Your task to perform on an android device: Clear the cart on ebay. Add razer thresher to the cart on ebay Image 0: 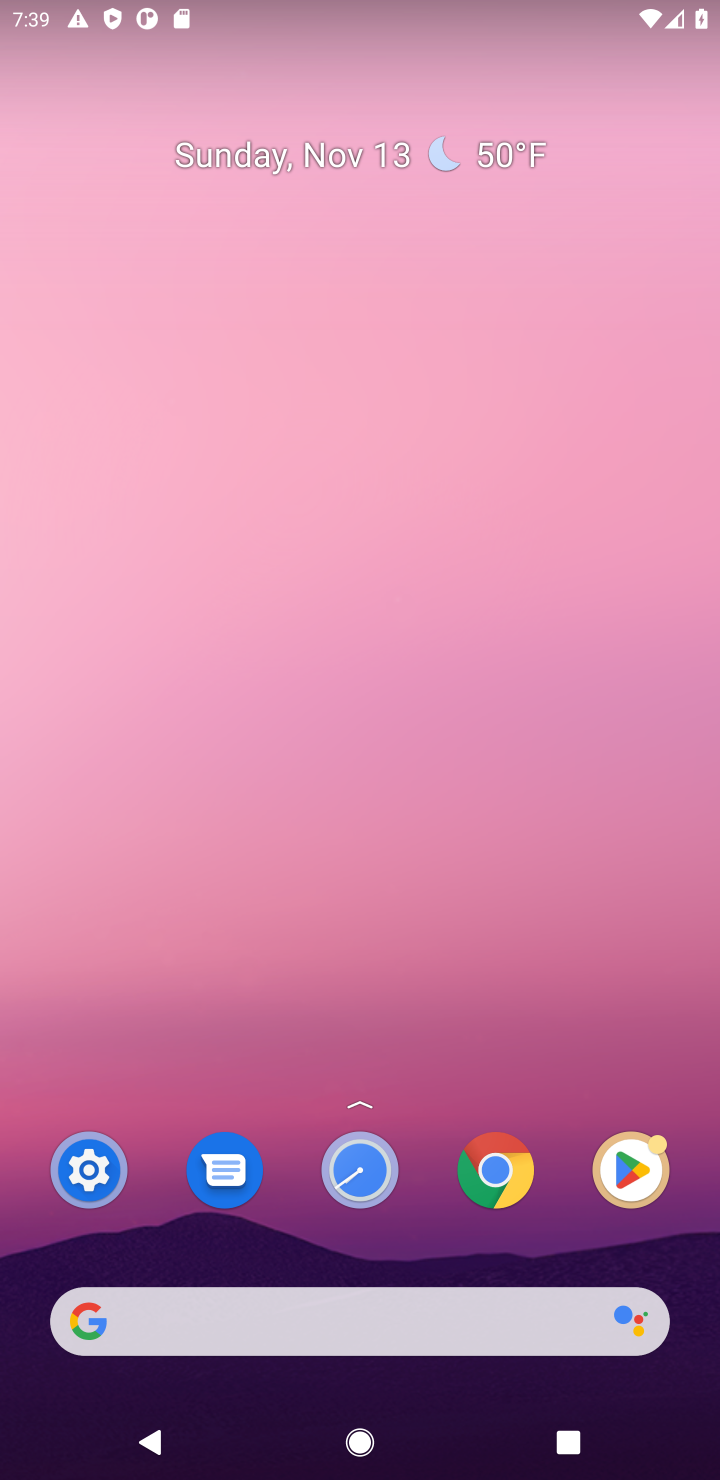
Step 0: click (262, 1311)
Your task to perform on an android device: Clear the cart on ebay. Add razer thresher to the cart on ebay Image 1: 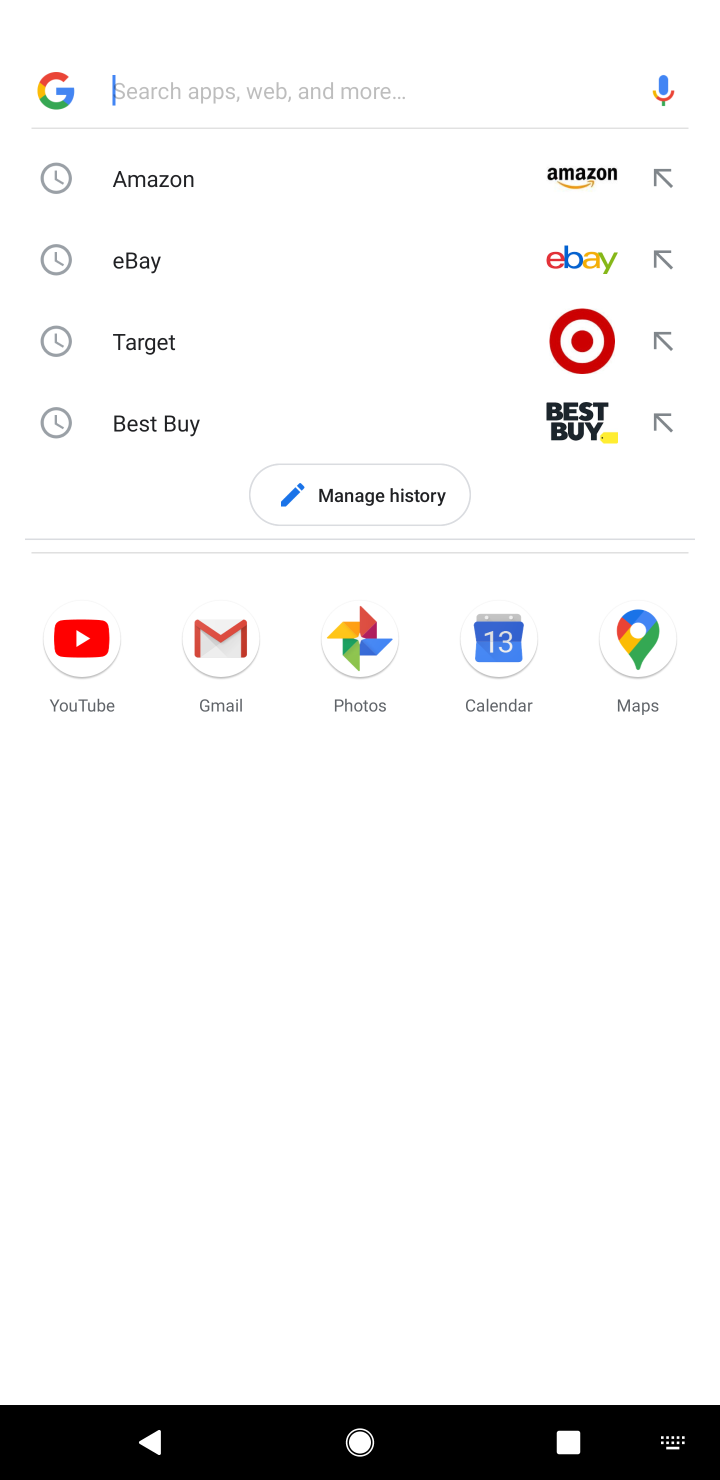
Step 1: click (249, 285)
Your task to perform on an android device: Clear the cart on ebay. Add razer thresher to the cart on ebay Image 2: 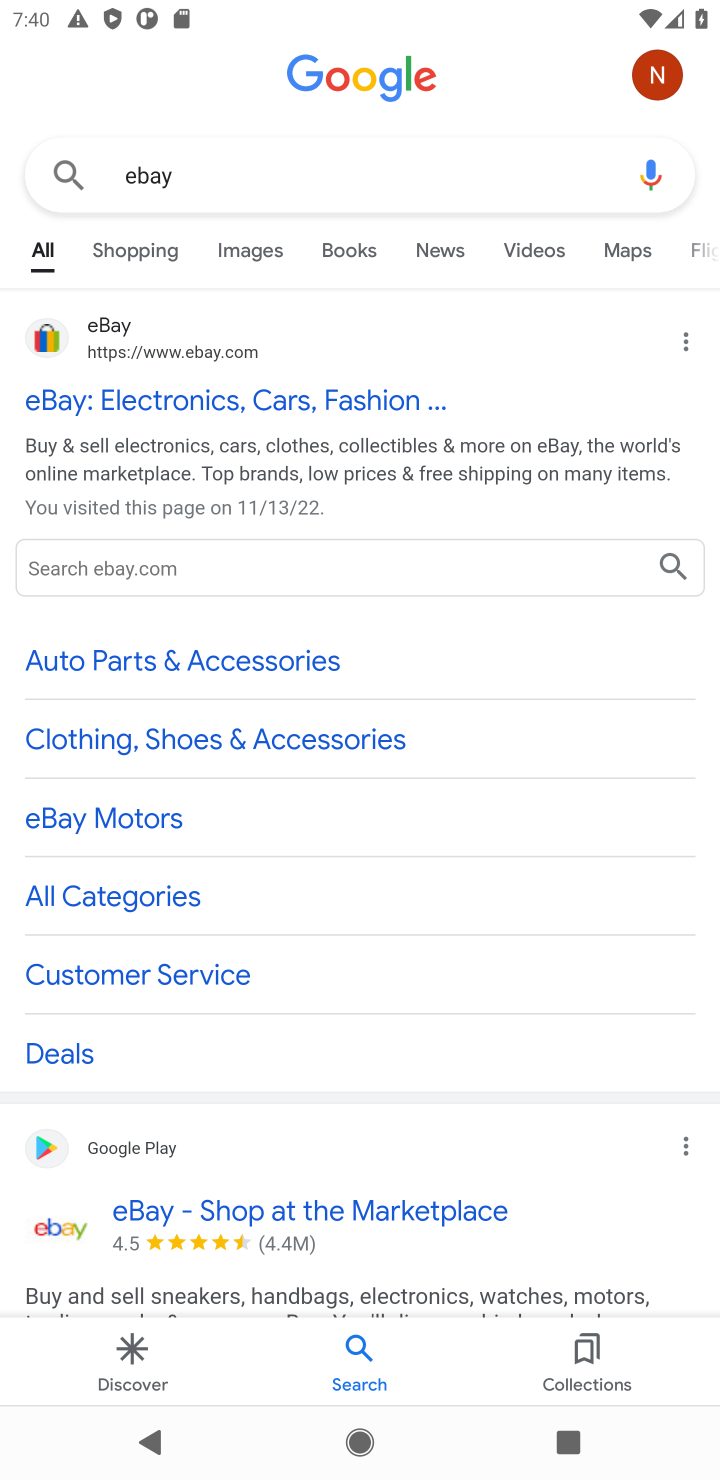
Step 2: click (196, 381)
Your task to perform on an android device: Clear the cart on ebay. Add razer thresher to the cart on ebay Image 3: 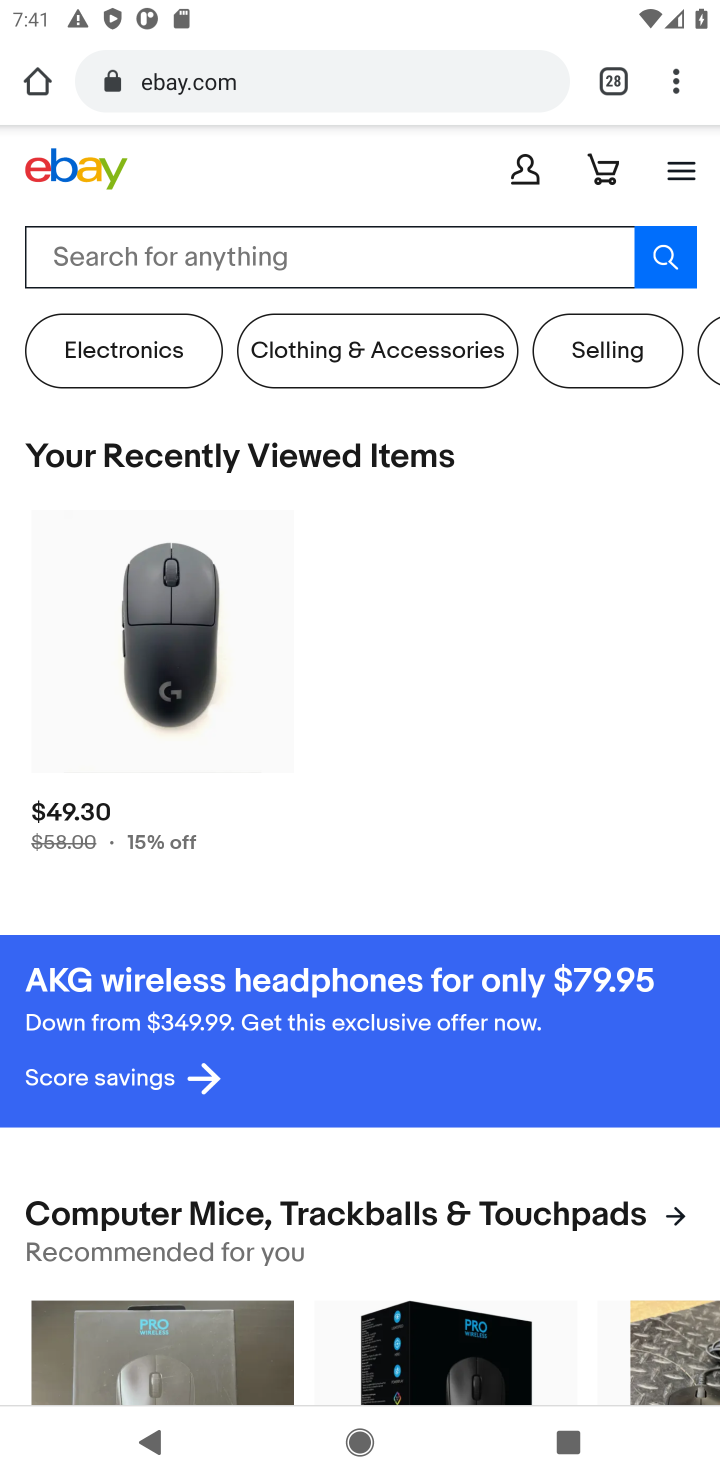
Step 3: task complete